Your task to perform on an android device: Open CNN.com Image 0: 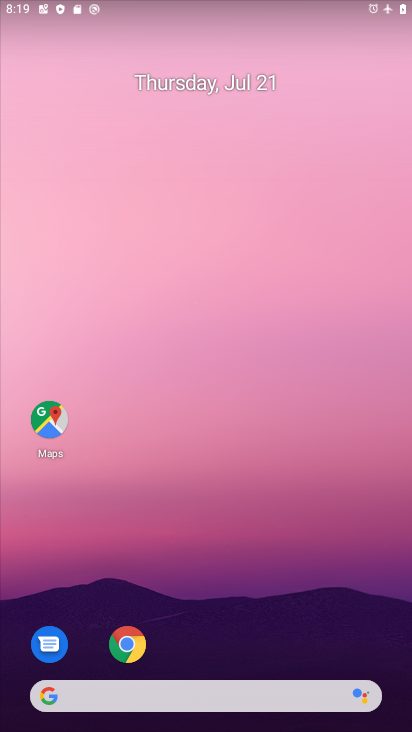
Step 0: click (127, 646)
Your task to perform on an android device: Open CNN.com Image 1: 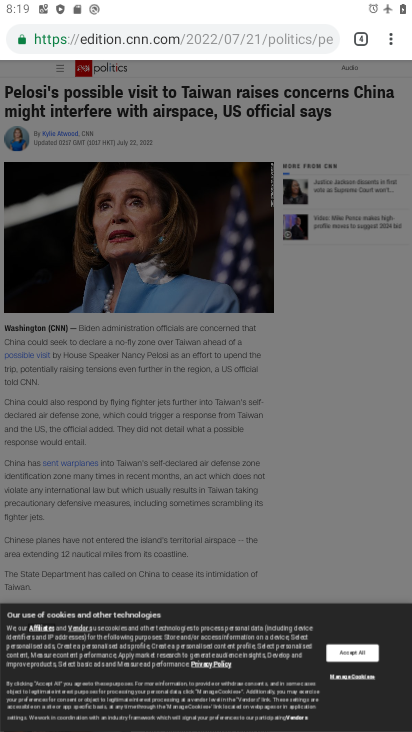
Step 1: click (335, 344)
Your task to perform on an android device: Open CNN.com Image 2: 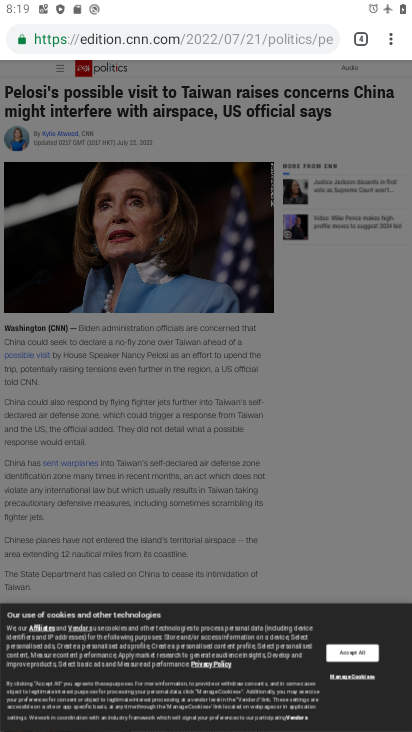
Step 2: click (402, 31)
Your task to perform on an android device: Open CNN.com Image 3: 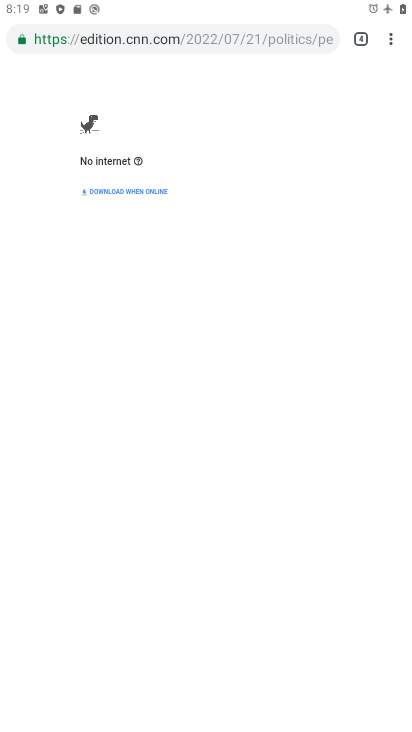
Step 3: click (383, 38)
Your task to perform on an android device: Open CNN.com Image 4: 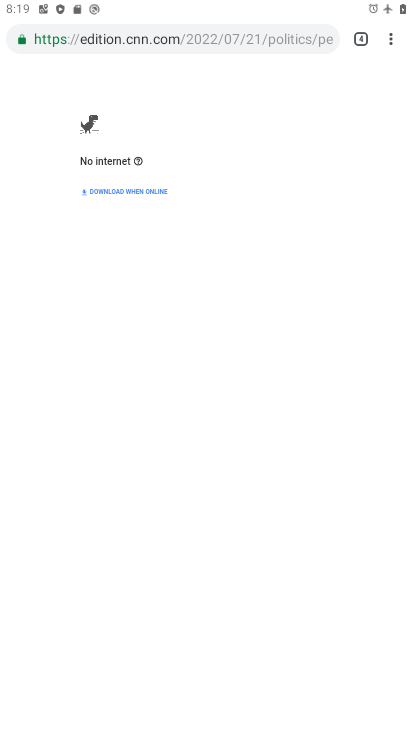
Step 4: click (396, 34)
Your task to perform on an android device: Open CNN.com Image 5: 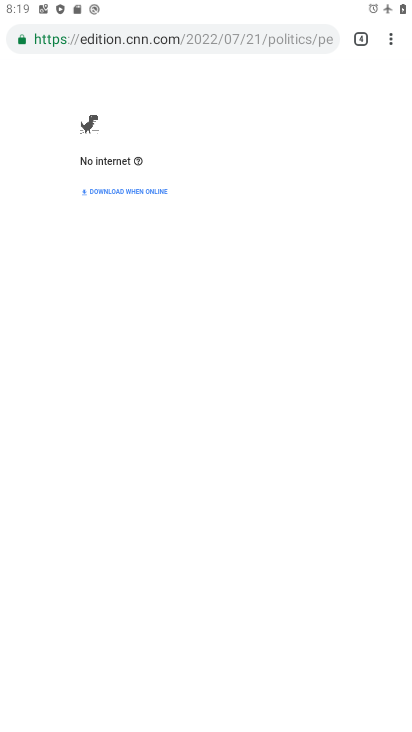
Step 5: click (392, 33)
Your task to perform on an android device: Open CNN.com Image 6: 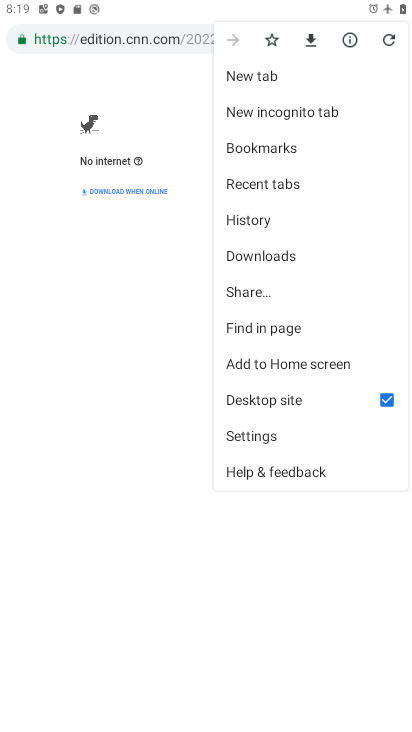
Step 6: click (240, 78)
Your task to perform on an android device: Open CNN.com Image 7: 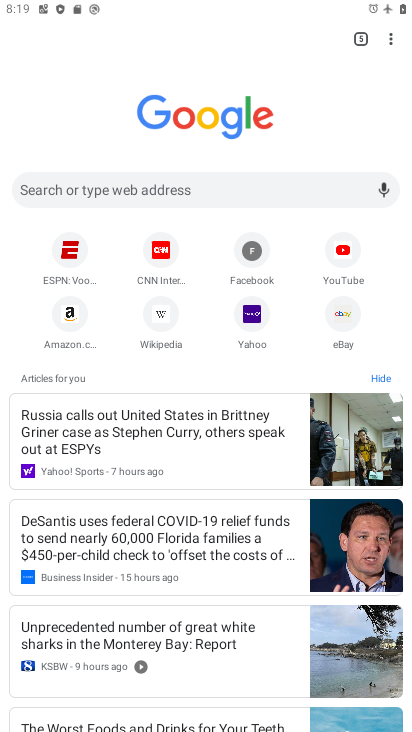
Step 7: click (174, 262)
Your task to perform on an android device: Open CNN.com Image 8: 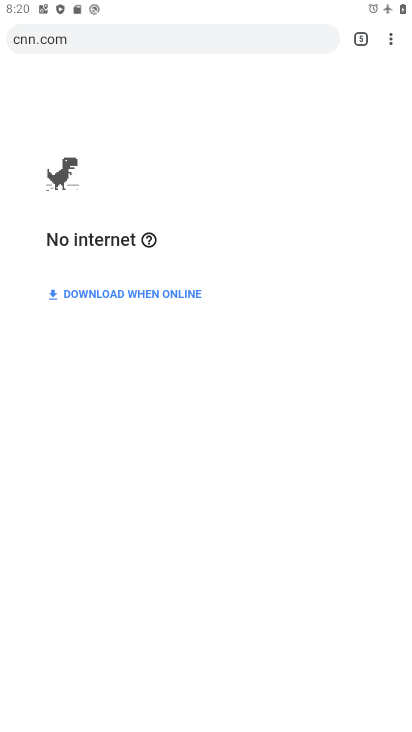
Step 8: task complete